Your task to perform on an android device: read, delete, or share a saved page in the chrome app Image 0: 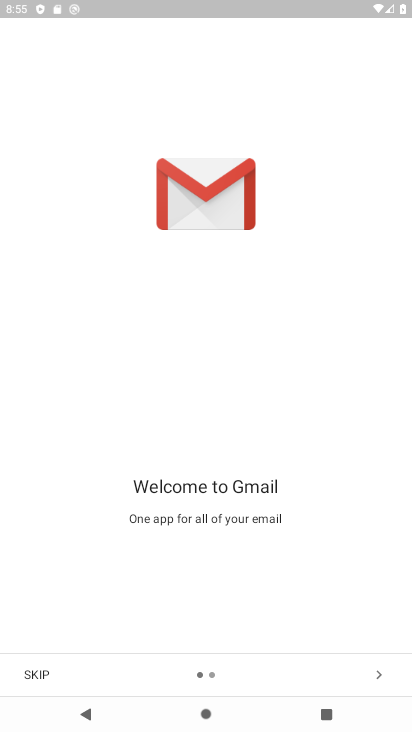
Step 0: press home button
Your task to perform on an android device: read, delete, or share a saved page in the chrome app Image 1: 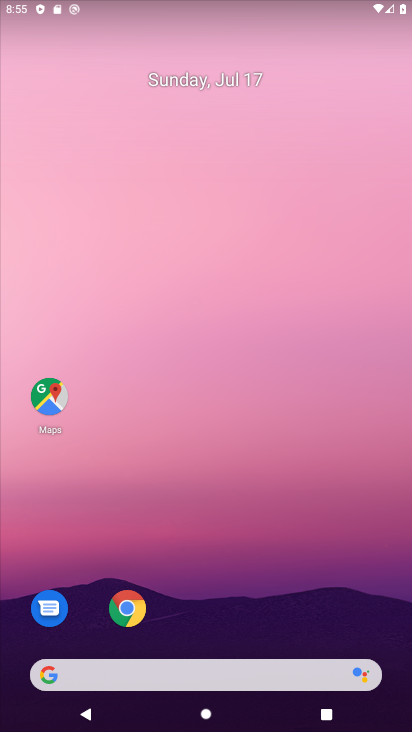
Step 1: drag from (242, 672) to (195, 143)
Your task to perform on an android device: read, delete, or share a saved page in the chrome app Image 2: 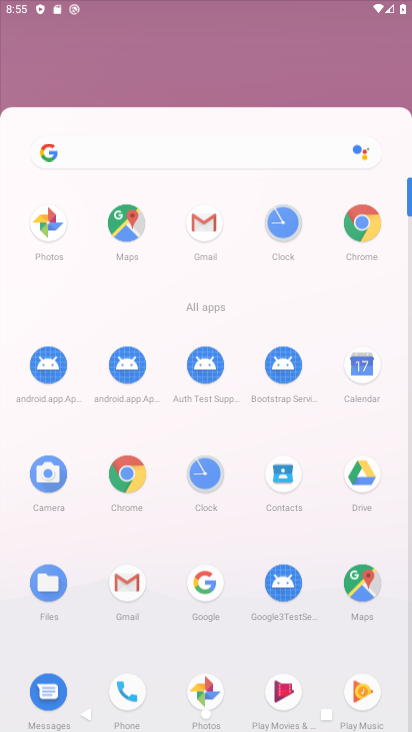
Step 2: drag from (239, 587) to (214, 229)
Your task to perform on an android device: read, delete, or share a saved page in the chrome app Image 3: 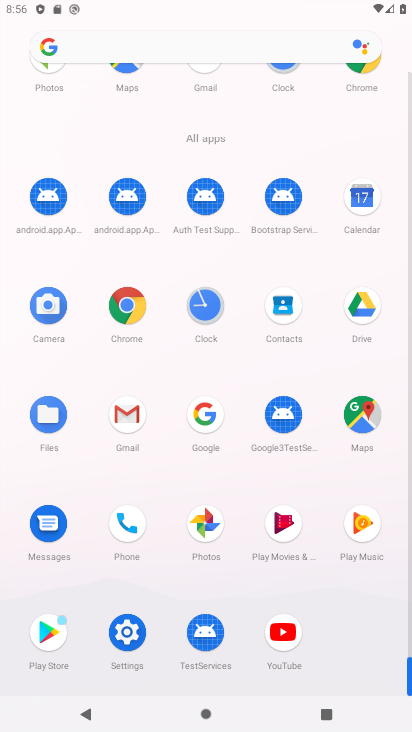
Step 3: click (111, 282)
Your task to perform on an android device: read, delete, or share a saved page in the chrome app Image 4: 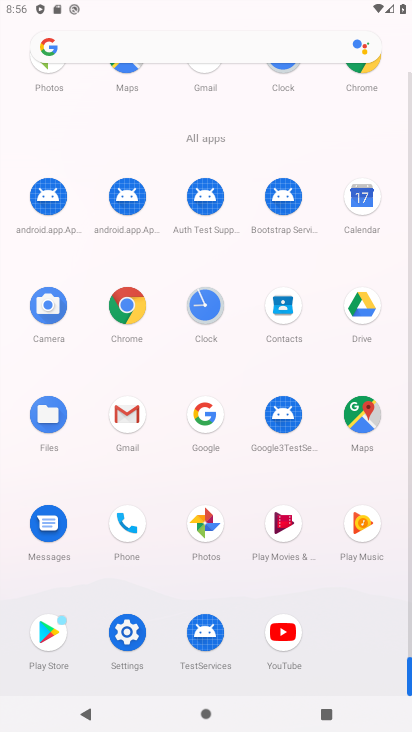
Step 4: click (119, 292)
Your task to perform on an android device: read, delete, or share a saved page in the chrome app Image 5: 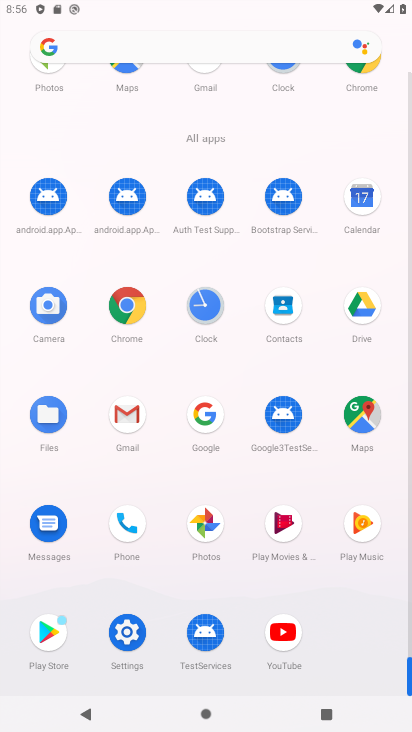
Step 5: click (120, 292)
Your task to perform on an android device: read, delete, or share a saved page in the chrome app Image 6: 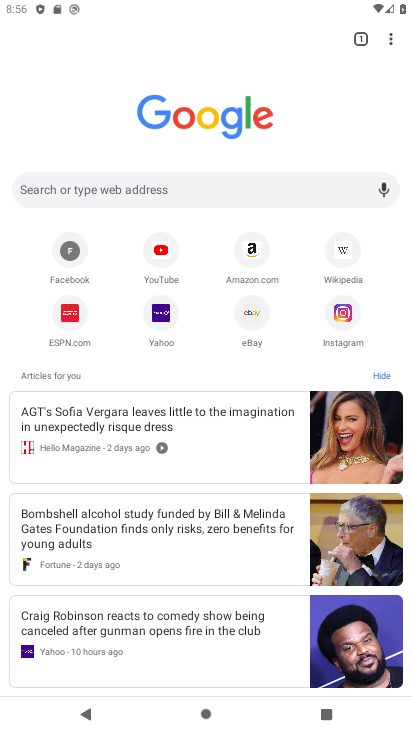
Step 6: drag from (374, 73) to (243, 392)
Your task to perform on an android device: read, delete, or share a saved page in the chrome app Image 7: 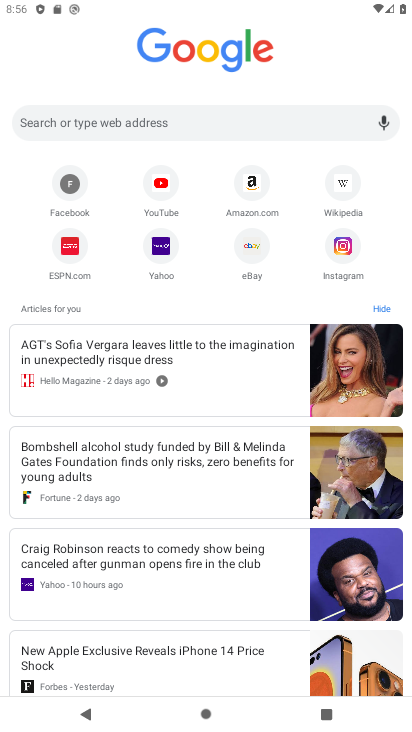
Step 7: drag from (298, 88) to (296, 411)
Your task to perform on an android device: read, delete, or share a saved page in the chrome app Image 8: 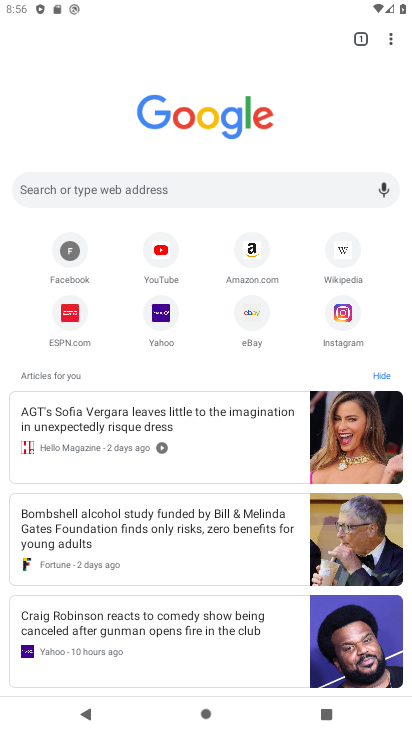
Step 8: drag from (387, 45) to (261, 257)
Your task to perform on an android device: read, delete, or share a saved page in the chrome app Image 9: 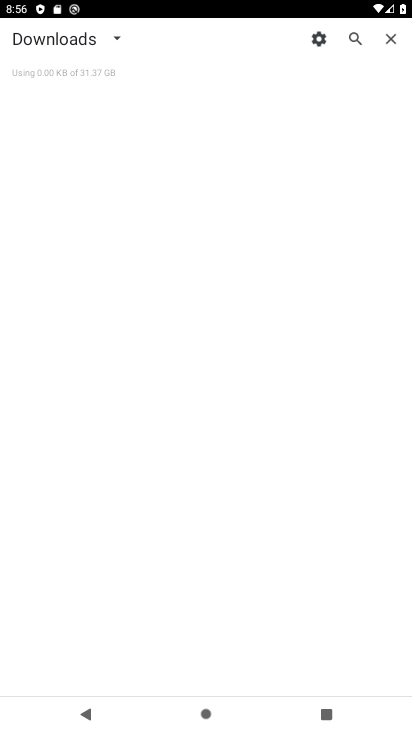
Step 9: click (261, 252)
Your task to perform on an android device: read, delete, or share a saved page in the chrome app Image 10: 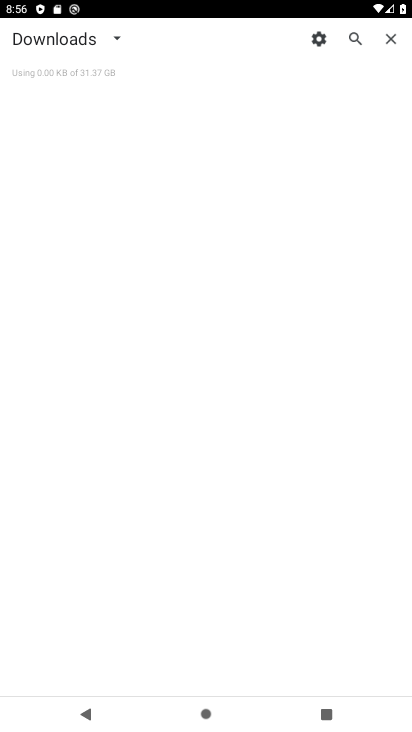
Step 10: click (112, 40)
Your task to perform on an android device: read, delete, or share a saved page in the chrome app Image 11: 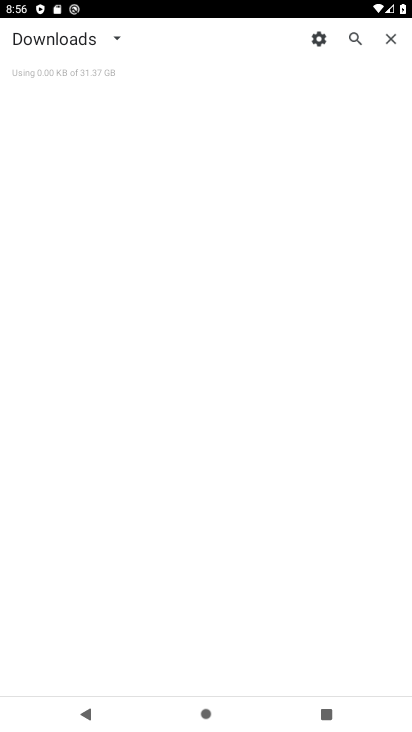
Step 11: click (114, 40)
Your task to perform on an android device: read, delete, or share a saved page in the chrome app Image 12: 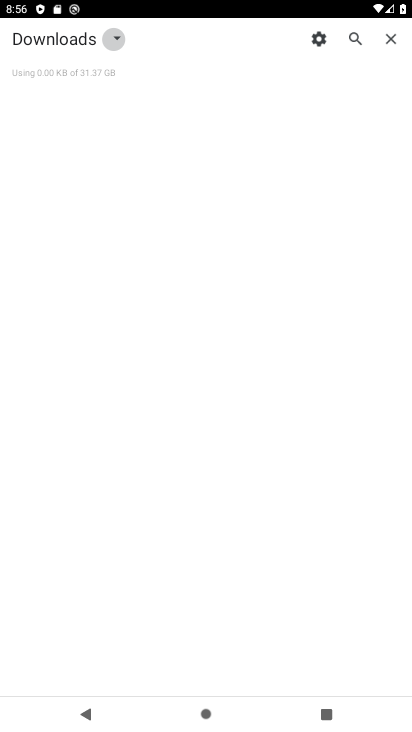
Step 12: click (118, 41)
Your task to perform on an android device: read, delete, or share a saved page in the chrome app Image 13: 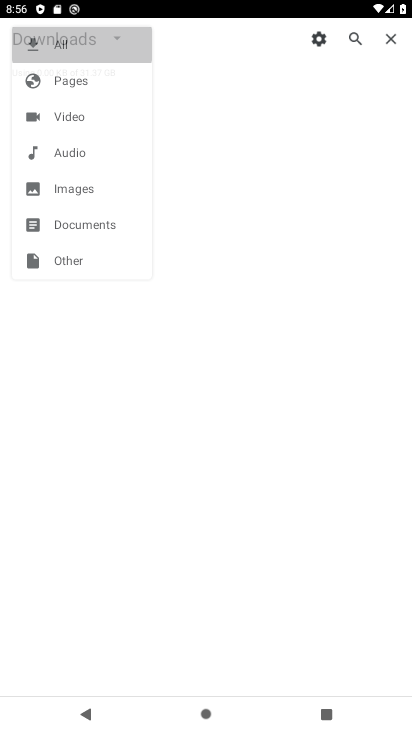
Step 13: click (118, 42)
Your task to perform on an android device: read, delete, or share a saved page in the chrome app Image 14: 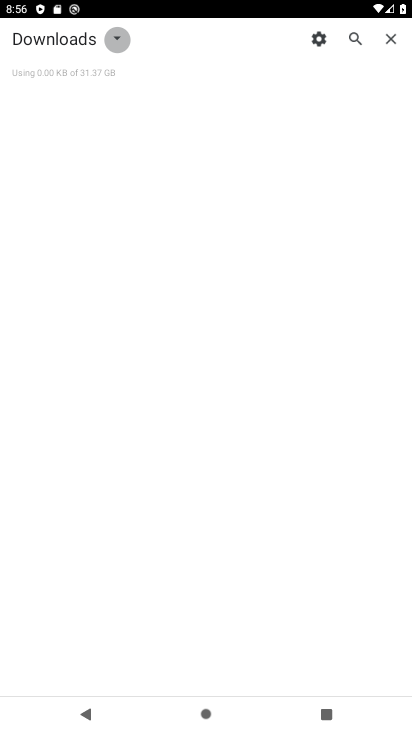
Step 14: click (105, 38)
Your task to perform on an android device: read, delete, or share a saved page in the chrome app Image 15: 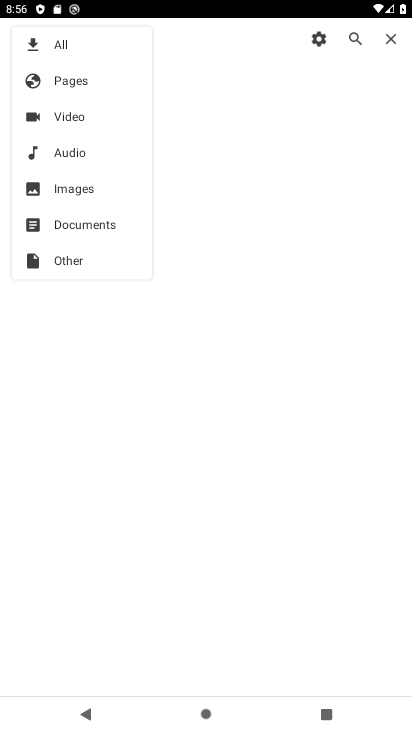
Step 15: click (110, 36)
Your task to perform on an android device: read, delete, or share a saved page in the chrome app Image 16: 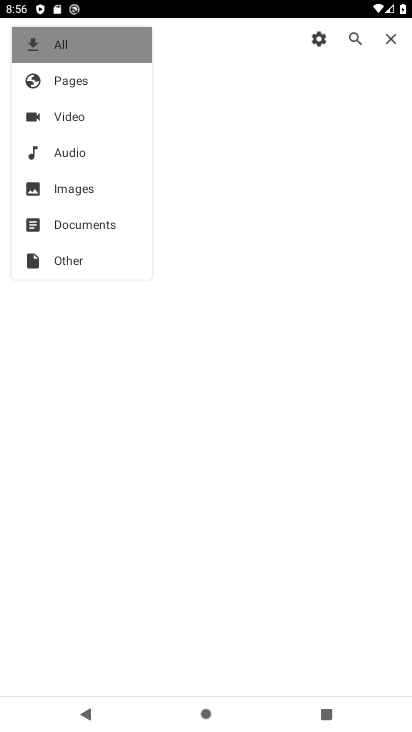
Step 16: click (113, 37)
Your task to perform on an android device: read, delete, or share a saved page in the chrome app Image 17: 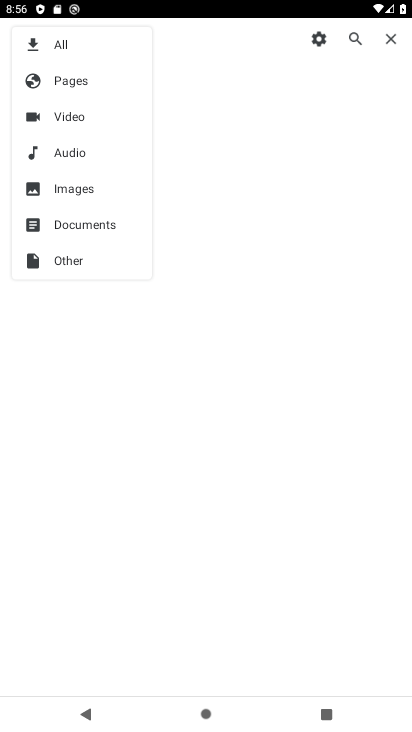
Step 17: task complete